Your task to perform on an android device: empty trash in google photos Image 0: 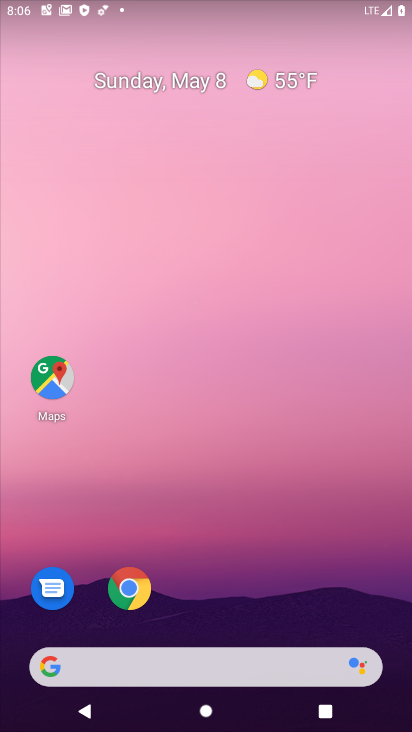
Step 0: click (261, 46)
Your task to perform on an android device: empty trash in google photos Image 1: 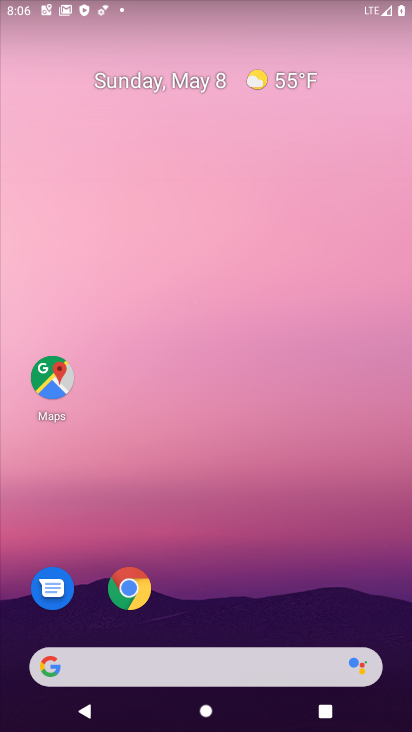
Step 1: drag from (339, 596) to (268, 6)
Your task to perform on an android device: empty trash in google photos Image 2: 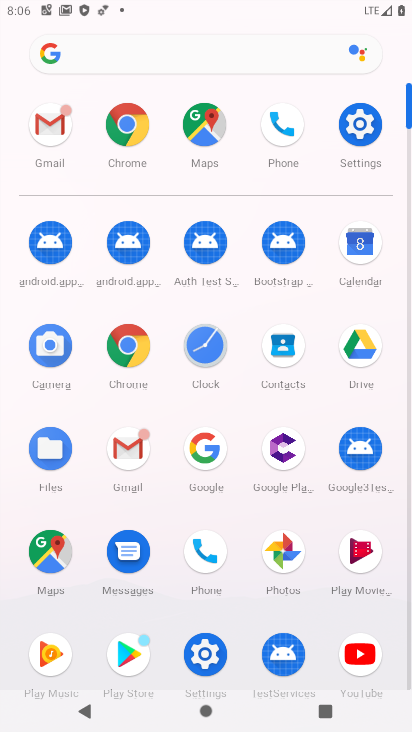
Step 2: click (270, 556)
Your task to perform on an android device: empty trash in google photos Image 3: 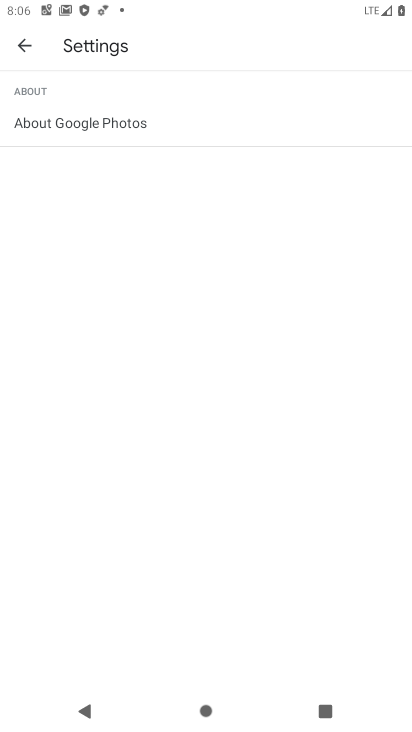
Step 3: click (17, 37)
Your task to perform on an android device: empty trash in google photos Image 4: 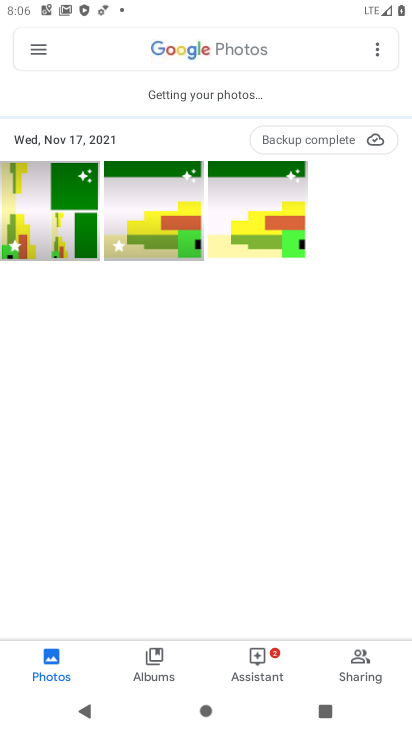
Step 4: click (43, 48)
Your task to perform on an android device: empty trash in google photos Image 5: 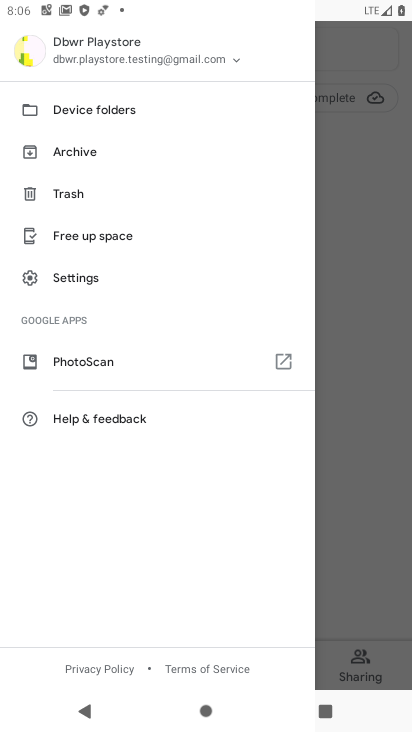
Step 5: click (76, 186)
Your task to perform on an android device: empty trash in google photos Image 6: 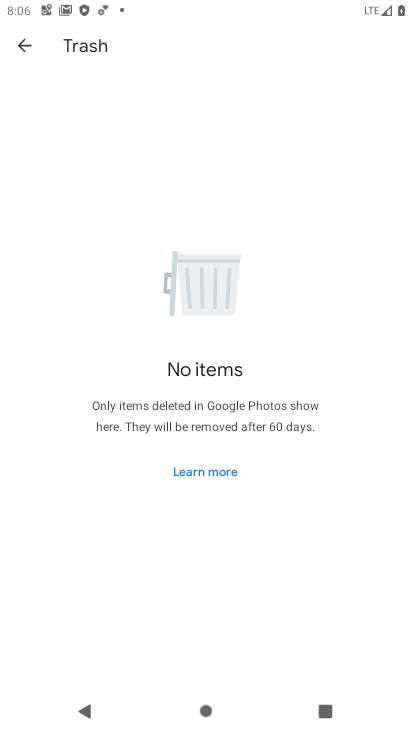
Step 6: task complete